Your task to perform on an android device: Toggle the flashlight Image 0: 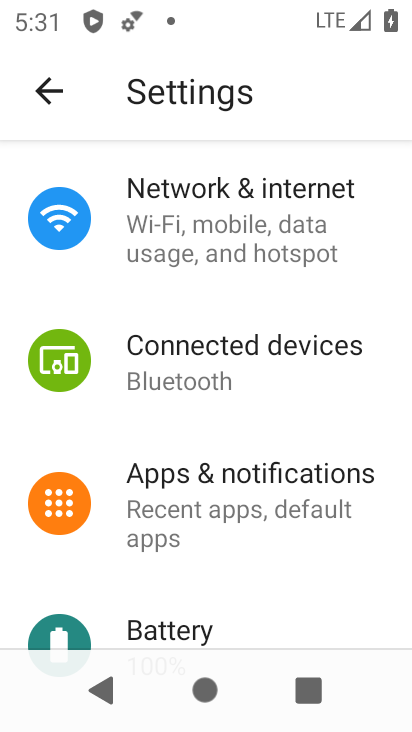
Step 0: press home button
Your task to perform on an android device: Toggle the flashlight Image 1: 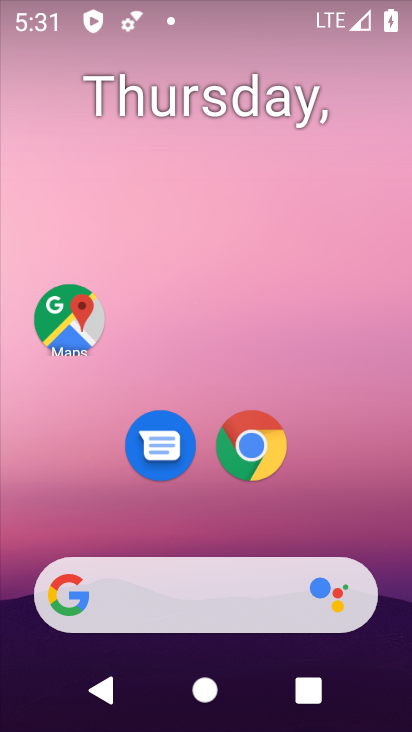
Step 1: task complete